Your task to perform on an android device: toggle javascript in the chrome app Image 0: 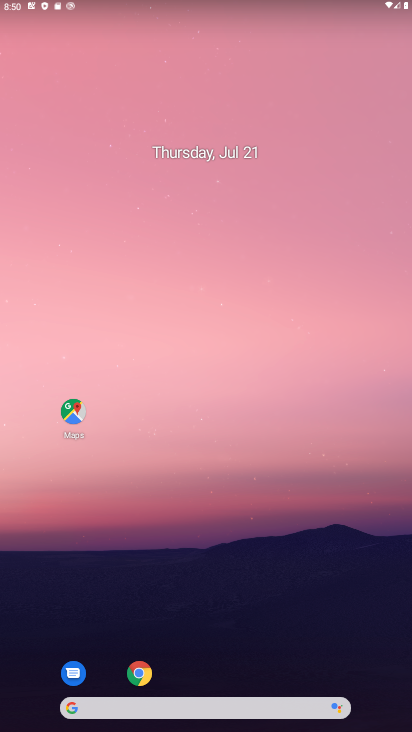
Step 0: click (142, 673)
Your task to perform on an android device: toggle javascript in the chrome app Image 1: 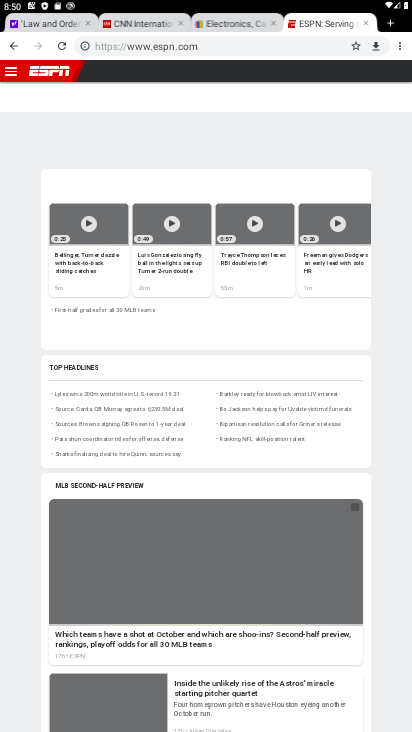
Step 1: click (399, 43)
Your task to perform on an android device: toggle javascript in the chrome app Image 2: 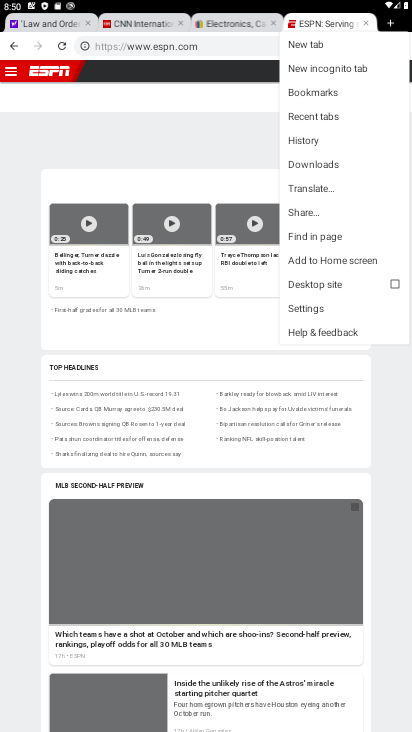
Step 2: click (303, 301)
Your task to perform on an android device: toggle javascript in the chrome app Image 3: 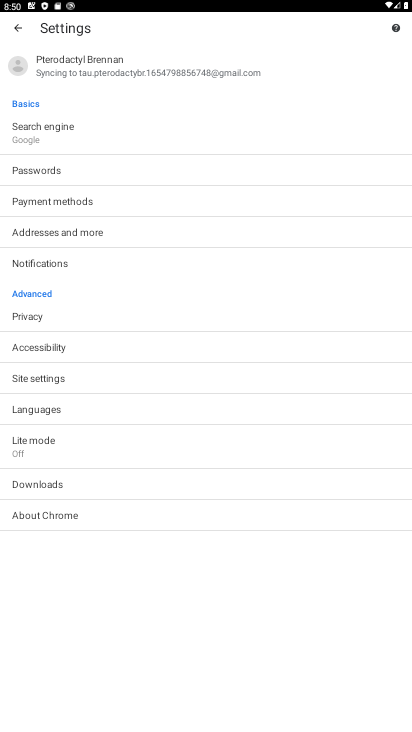
Step 3: click (59, 379)
Your task to perform on an android device: toggle javascript in the chrome app Image 4: 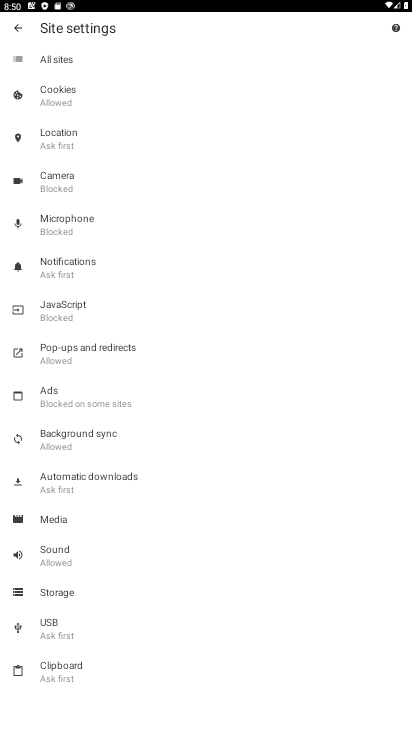
Step 4: click (51, 306)
Your task to perform on an android device: toggle javascript in the chrome app Image 5: 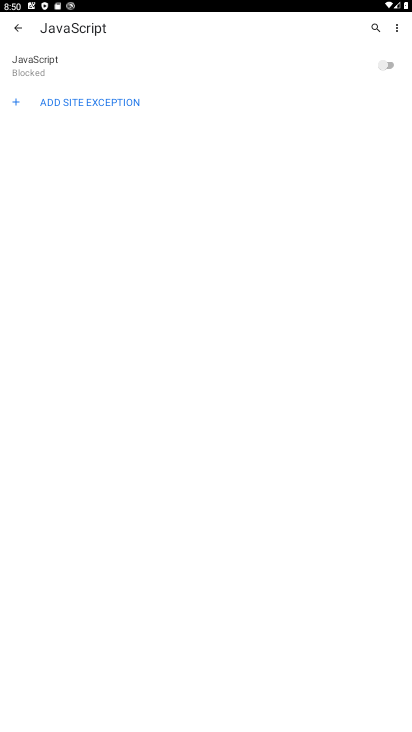
Step 5: click (395, 64)
Your task to perform on an android device: toggle javascript in the chrome app Image 6: 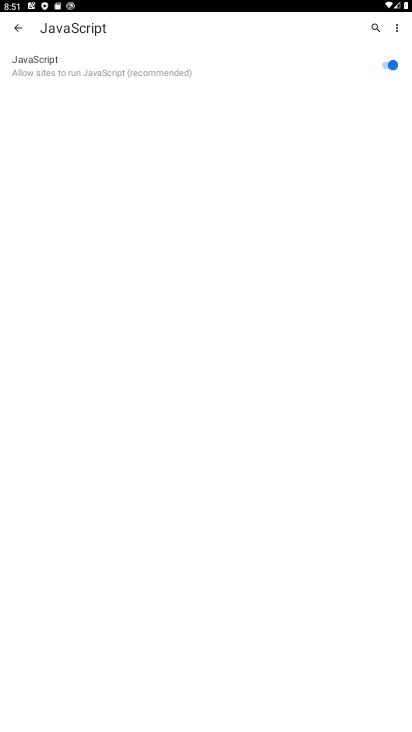
Step 6: task complete